Your task to perform on an android device: turn off data saver in the chrome app Image 0: 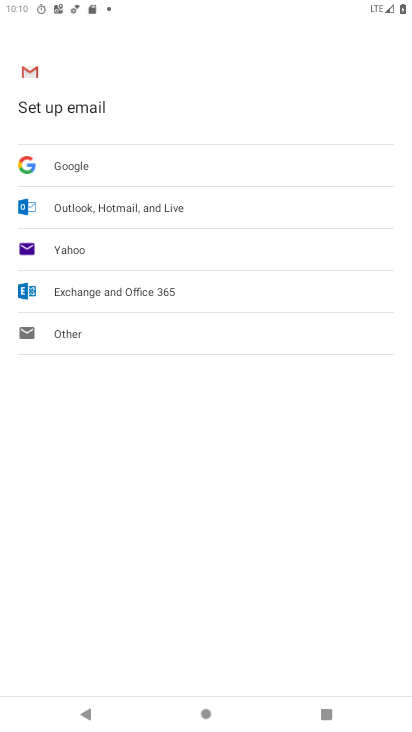
Step 0: press home button
Your task to perform on an android device: turn off data saver in the chrome app Image 1: 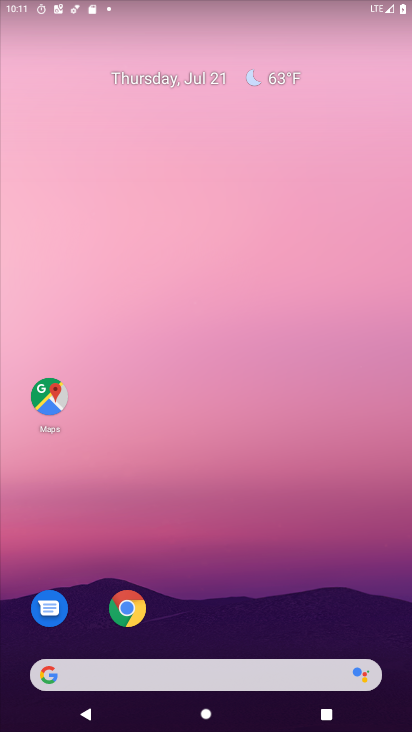
Step 1: click (134, 610)
Your task to perform on an android device: turn off data saver in the chrome app Image 2: 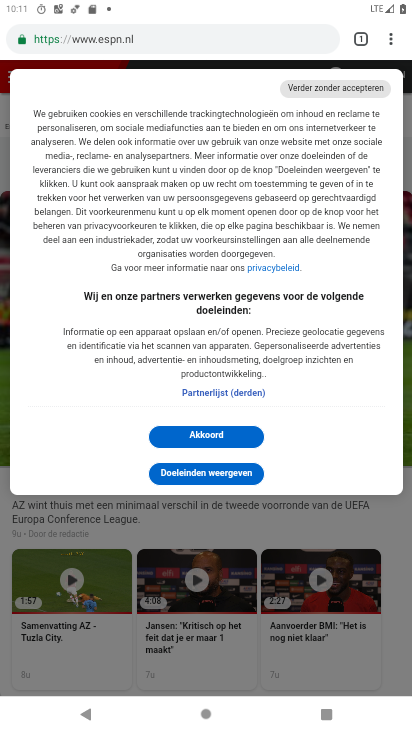
Step 2: click (392, 45)
Your task to perform on an android device: turn off data saver in the chrome app Image 3: 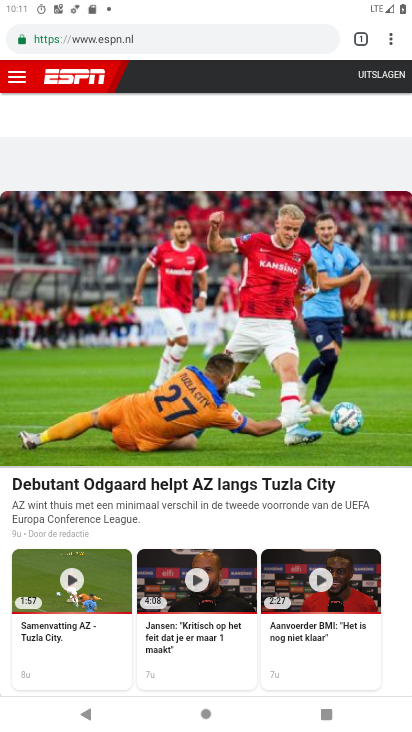
Step 3: click (393, 34)
Your task to perform on an android device: turn off data saver in the chrome app Image 4: 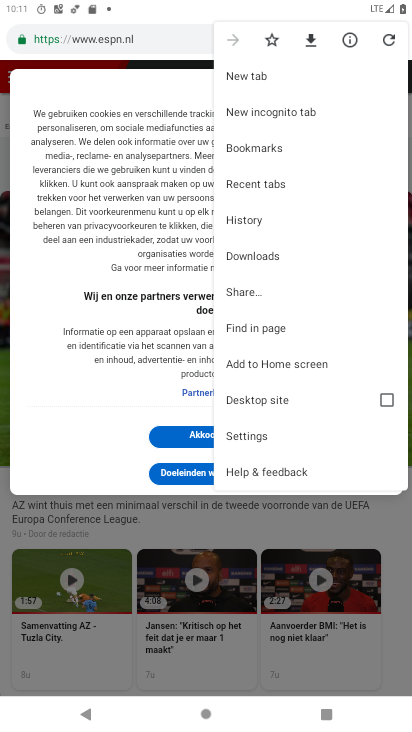
Step 4: click (261, 443)
Your task to perform on an android device: turn off data saver in the chrome app Image 5: 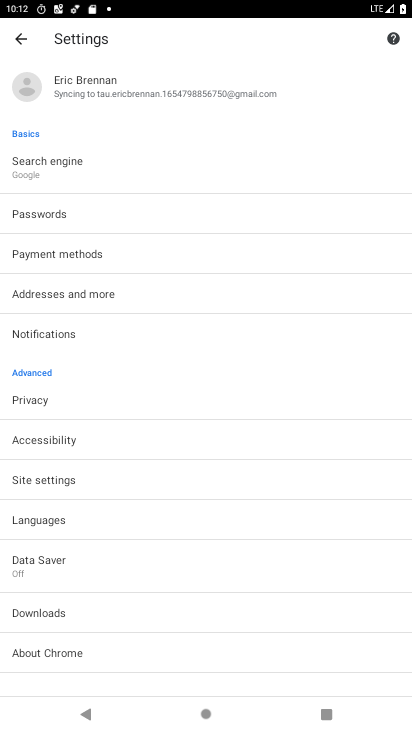
Step 5: click (47, 573)
Your task to perform on an android device: turn off data saver in the chrome app Image 6: 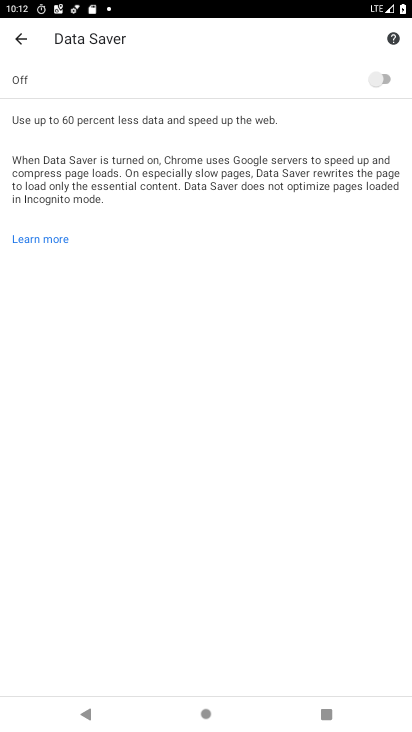
Step 6: click (390, 77)
Your task to perform on an android device: turn off data saver in the chrome app Image 7: 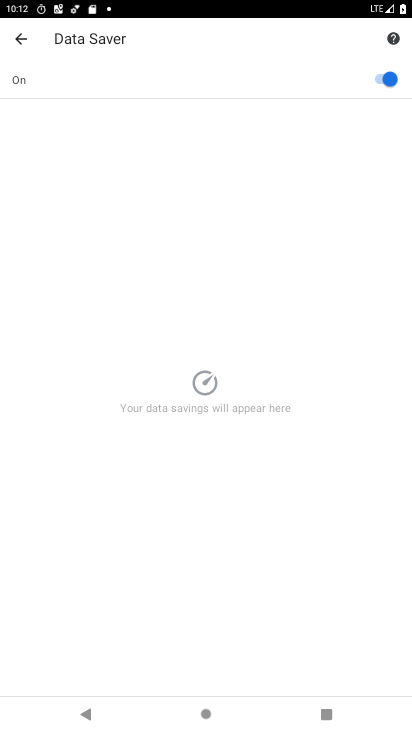
Step 7: click (365, 89)
Your task to perform on an android device: turn off data saver in the chrome app Image 8: 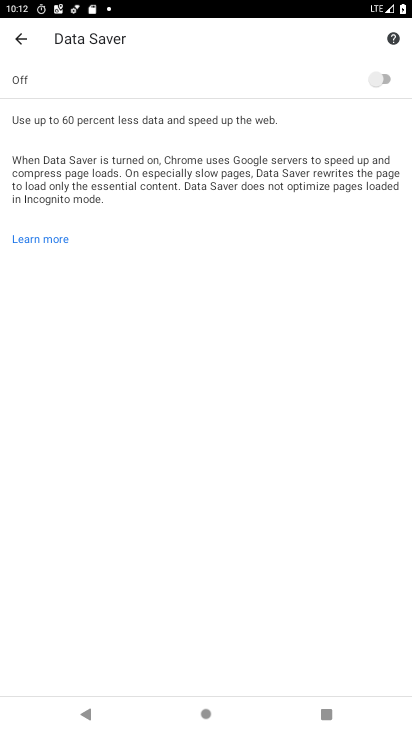
Step 8: task complete